Your task to perform on an android device: delete the emails in spam in the gmail app Image 0: 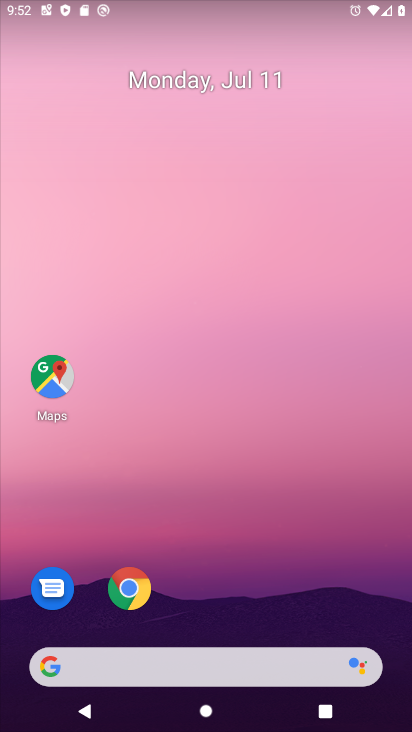
Step 0: drag from (190, 605) to (286, 3)
Your task to perform on an android device: delete the emails in spam in the gmail app Image 1: 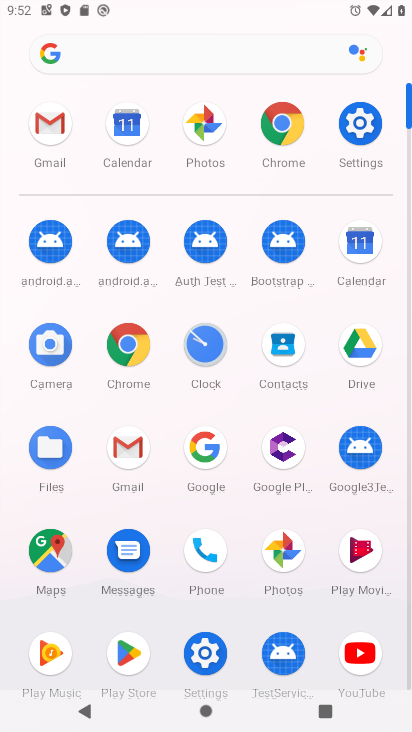
Step 1: click (61, 123)
Your task to perform on an android device: delete the emails in spam in the gmail app Image 2: 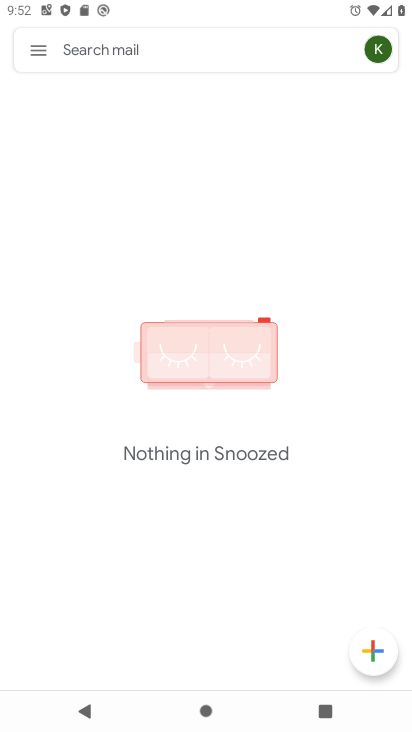
Step 2: click (29, 49)
Your task to perform on an android device: delete the emails in spam in the gmail app Image 3: 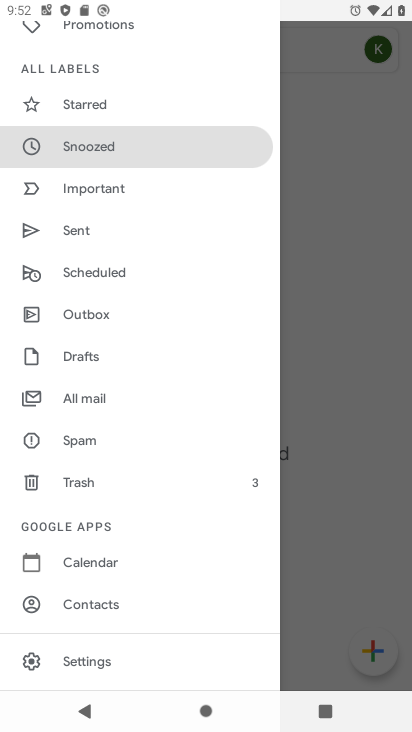
Step 3: click (85, 434)
Your task to perform on an android device: delete the emails in spam in the gmail app Image 4: 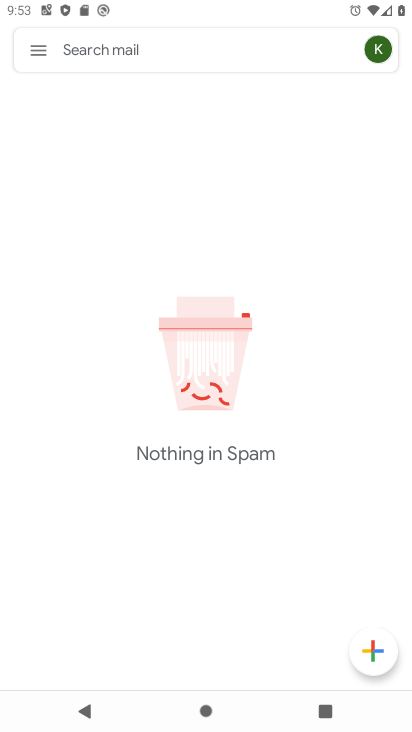
Step 4: task complete